Your task to perform on an android device: find which apps use the phone's location Image 0: 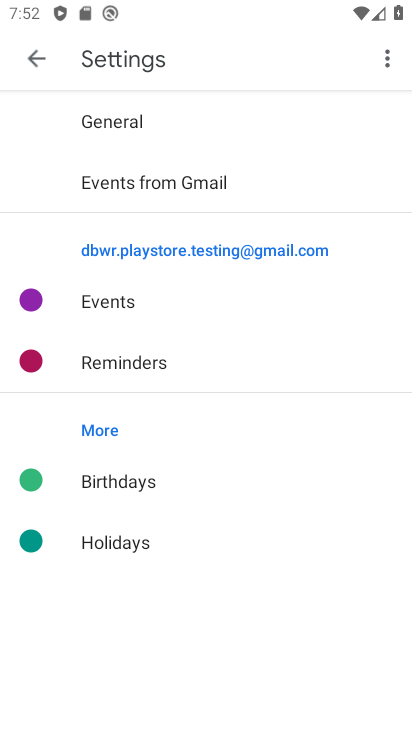
Step 0: press home button
Your task to perform on an android device: find which apps use the phone's location Image 1: 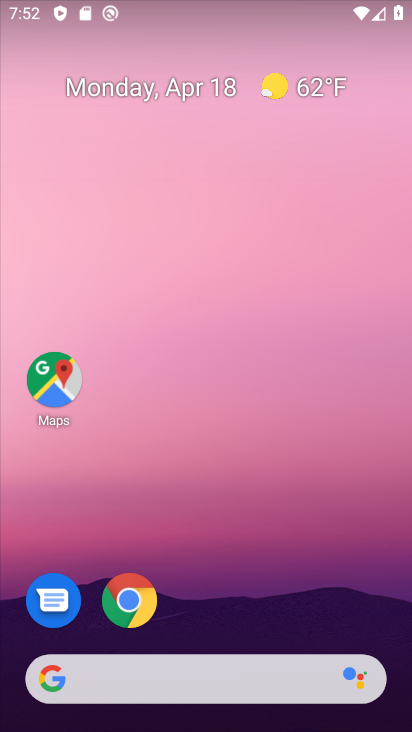
Step 1: drag from (230, 641) to (263, 3)
Your task to perform on an android device: find which apps use the phone's location Image 2: 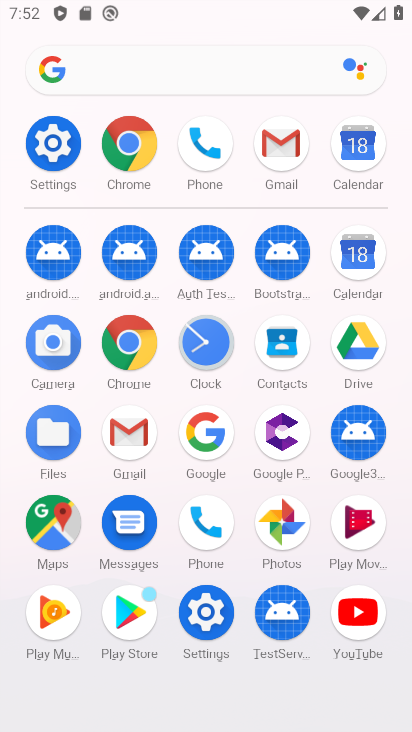
Step 2: click (212, 628)
Your task to perform on an android device: find which apps use the phone's location Image 3: 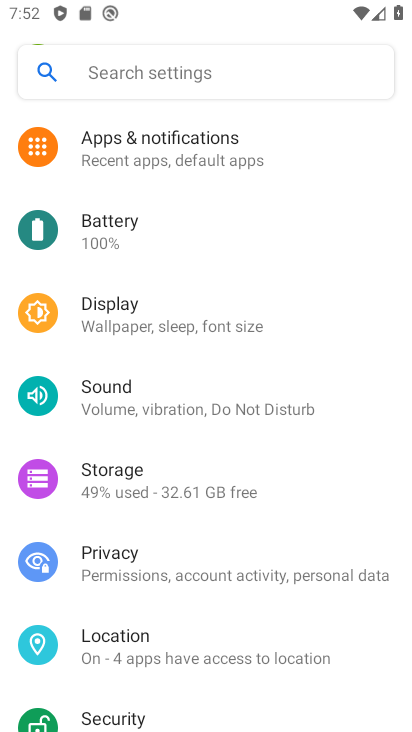
Step 3: click (165, 651)
Your task to perform on an android device: find which apps use the phone's location Image 4: 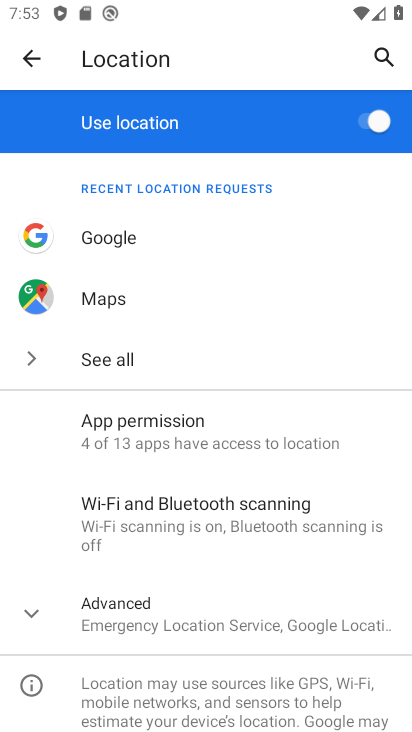
Step 4: drag from (170, 437) to (183, 248)
Your task to perform on an android device: find which apps use the phone's location Image 5: 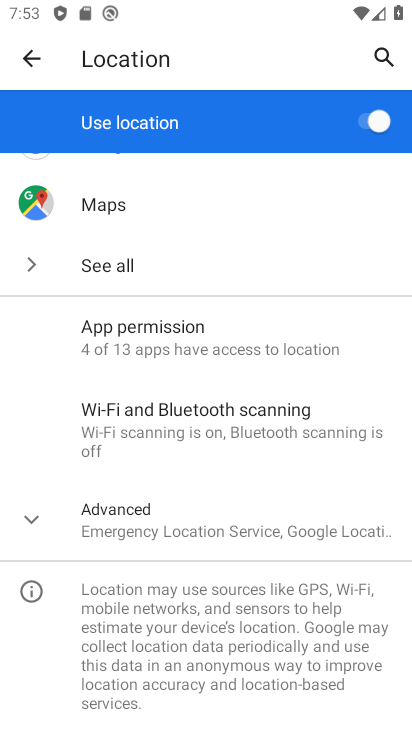
Step 5: click (115, 257)
Your task to perform on an android device: find which apps use the phone's location Image 6: 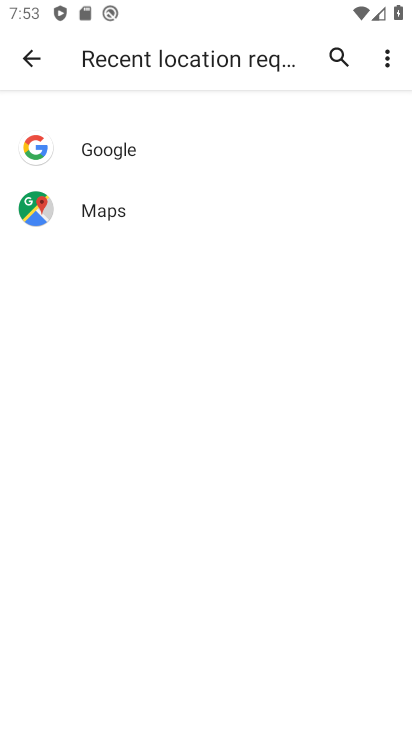
Step 6: click (40, 55)
Your task to perform on an android device: find which apps use the phone's location Image 7: 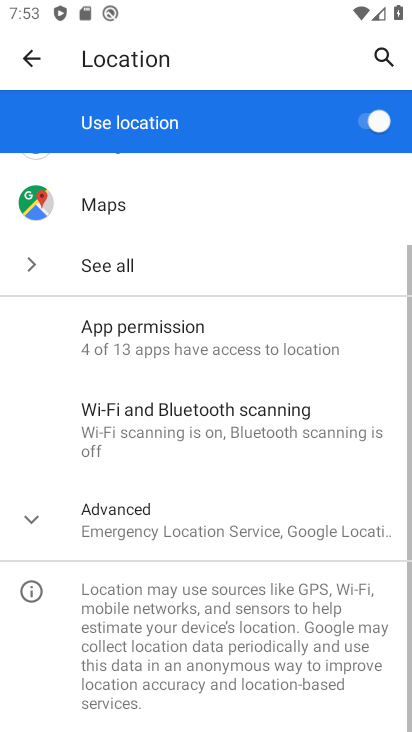
Step 7: click (137, 324)
Your task to perform on an android device: find which apps use the phone's location Image 8: 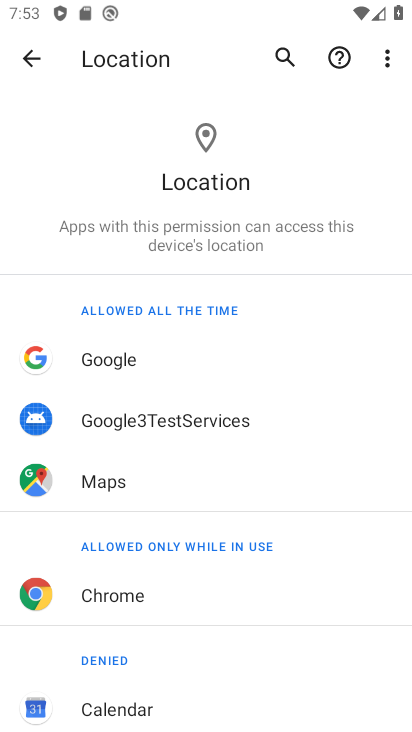
Step 8: task complete